Your task to perform on an android device: Open Youtube and go to the subscriptions tab Image 0: 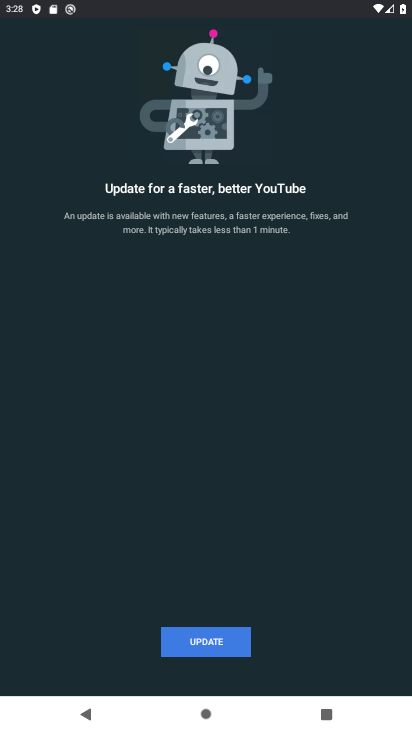
Step 0: click (204, 648)
Your task to perform on an android device: Open Youtube and go to the subscriptions tab Image 1: 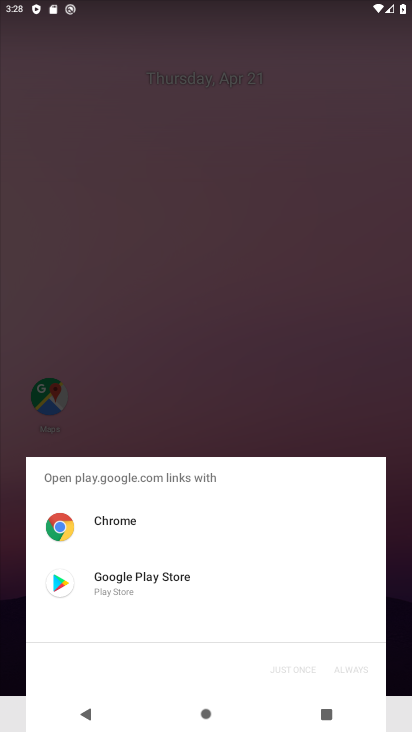
Step 1: press home button
Your task to perform on an android device: Open Youtube and go to the subscriptions tab Image 2: 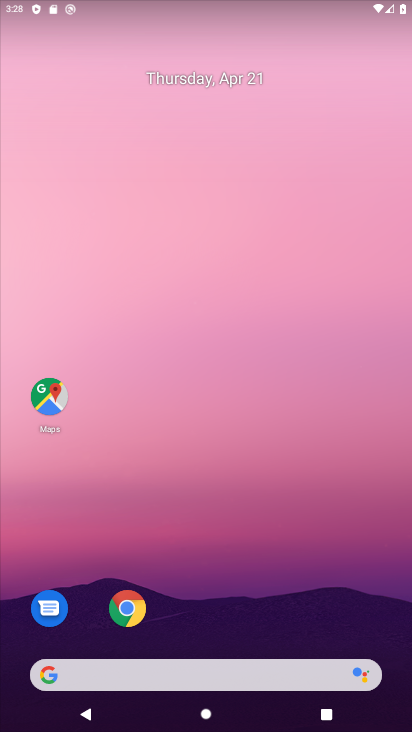
Step 2: drag from (322, 553) to (328, 51)
Your task to perform on an android device: Open Youtube and go to the subscriptions tab Image 3: 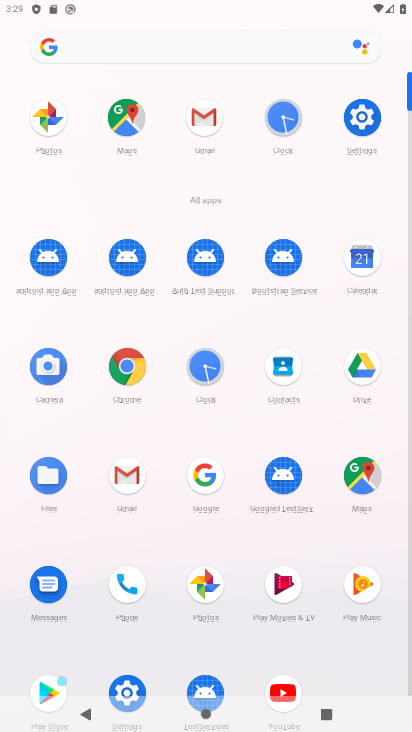
Step 3: click (278, 685)
Your task to perform on an android device: Open Youtube and go to the subscriptions tab Image 4: 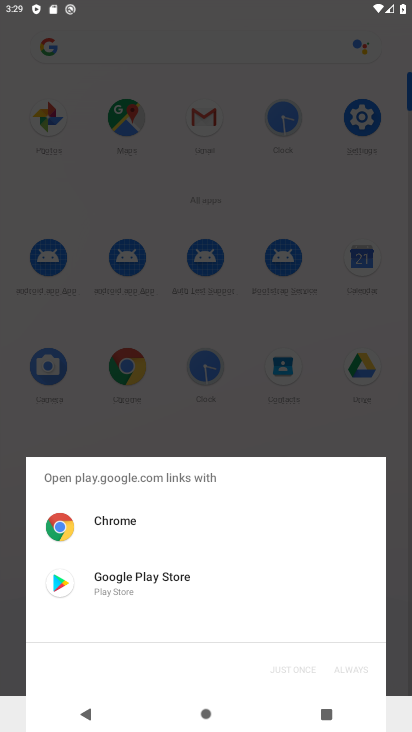
Step 4: click (110, 591)
Your task to perform on an android device: Open Youtube and go to the subscriptions tab Image 5: 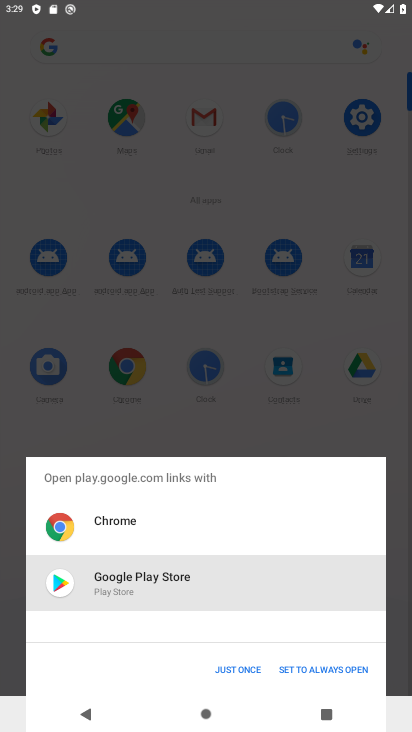
Step 5: click (240, 671)
Your task to perform on an android device: Open Youtube and go to the subscriptions tab Image 6: 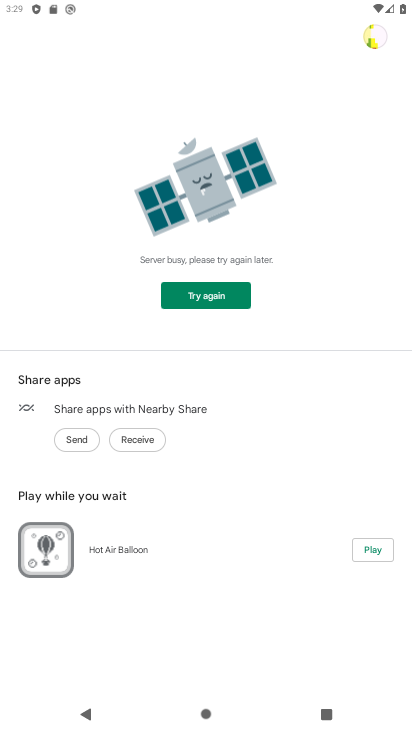
Step 6: task complete